Your task to perform on an android device: What's the weather going to be this weekend? Image 0: 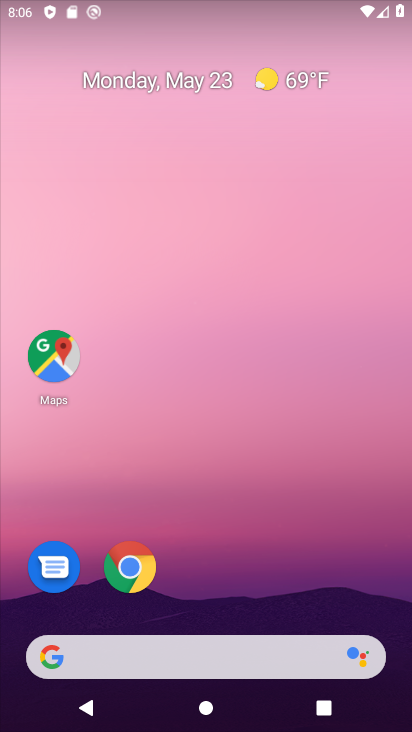
Step 0: click (301, 80)
Your task to perform on an android device: What's the weather going to be this weekend? Image 1: 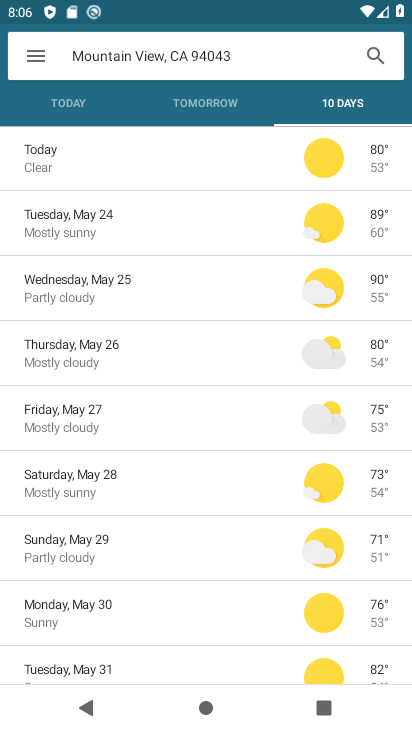
Step 1: task complete